Your task to perform on an android device: Go to Google Image 0: 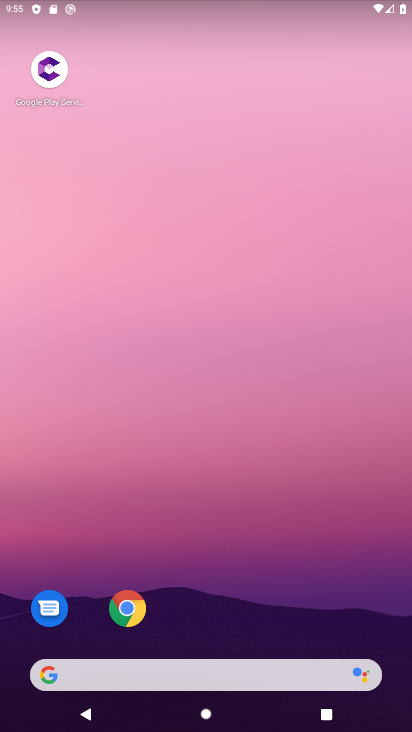
Step 0: drag from (262, 564) to (254, 0)
Your task to perform on an android device: Go to Google Image 1: 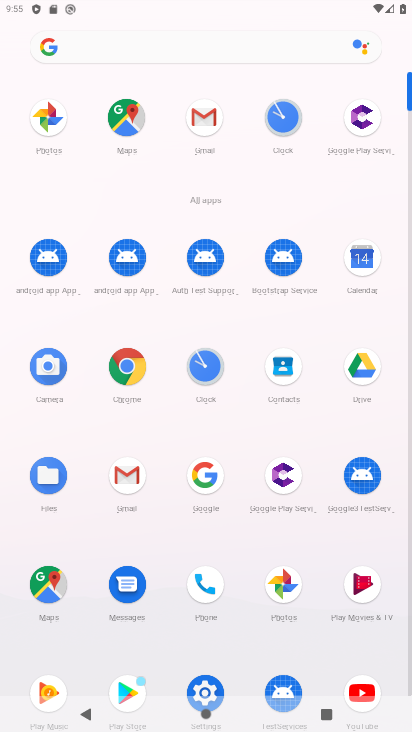
Step 1: click (208, 476)
Your task to perform on an android device: Go to Google Image 2: 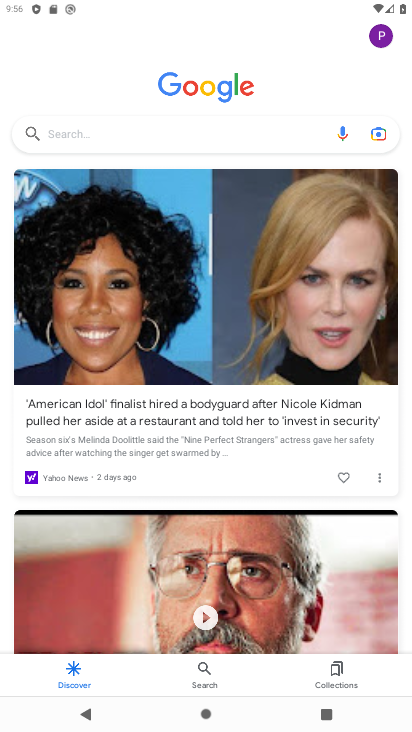
Step 2: task complete